Your task to perform on an android device: find photos in the google photos app Image 0: 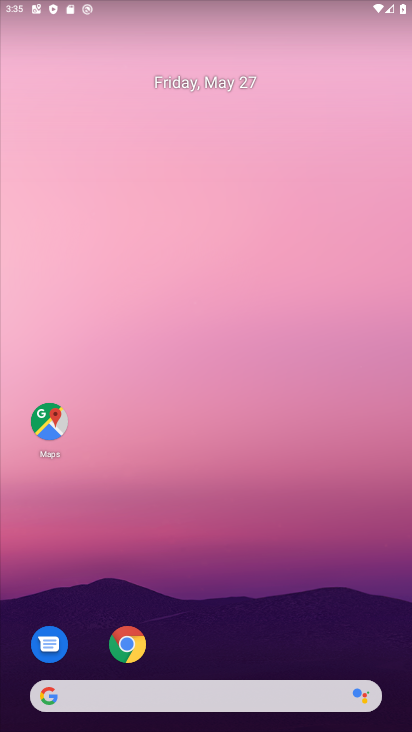
Step 0: drag from (266, 570) to (167, 14)
Your task to perform on an android device: find photos in the google photos app Image 1: 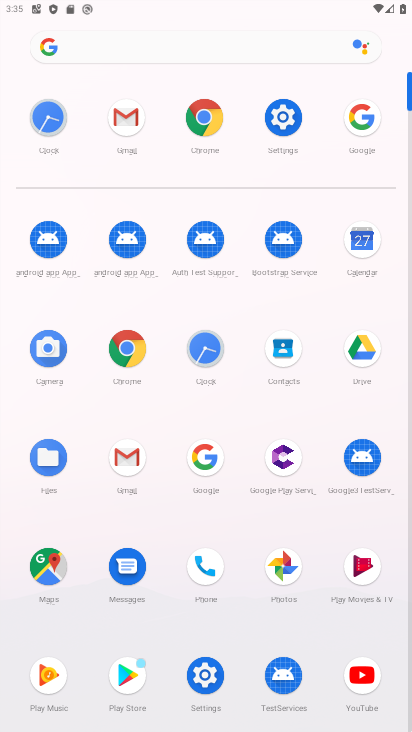
Step 1: click (286, 548)
Your task to perform on an android device: find photos in the google photos app Image 2: 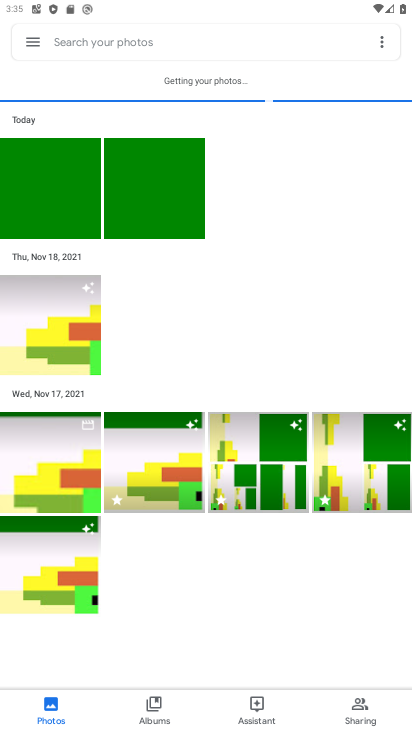
Step 2: task complete